Your task to perform on an android device: Go to ESPN.com Image 0: 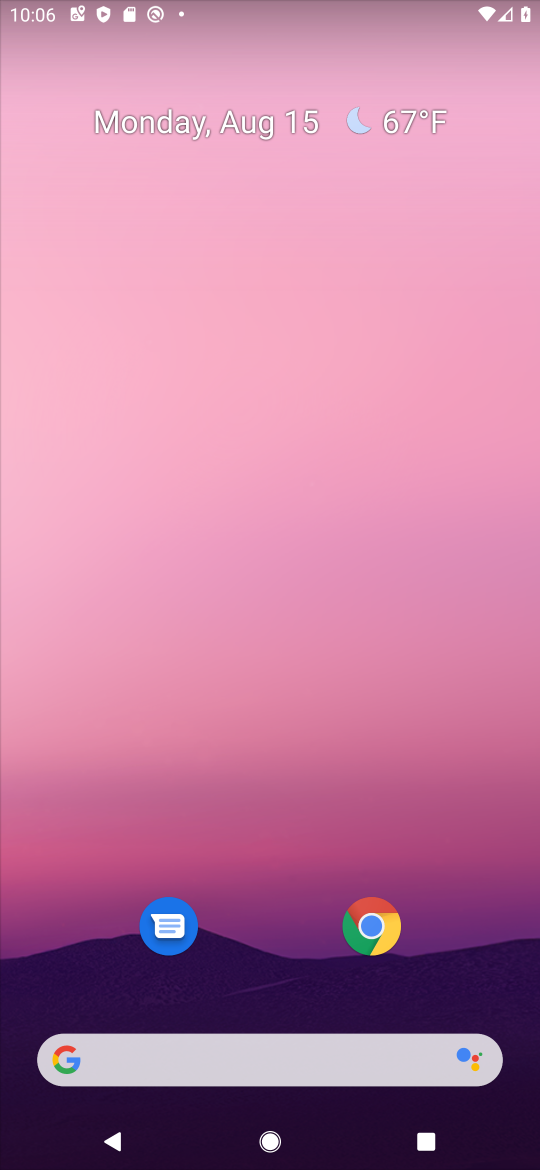
Step 0: press home button
Your task to perform on an android device: Go to ESPN.com Image 1: 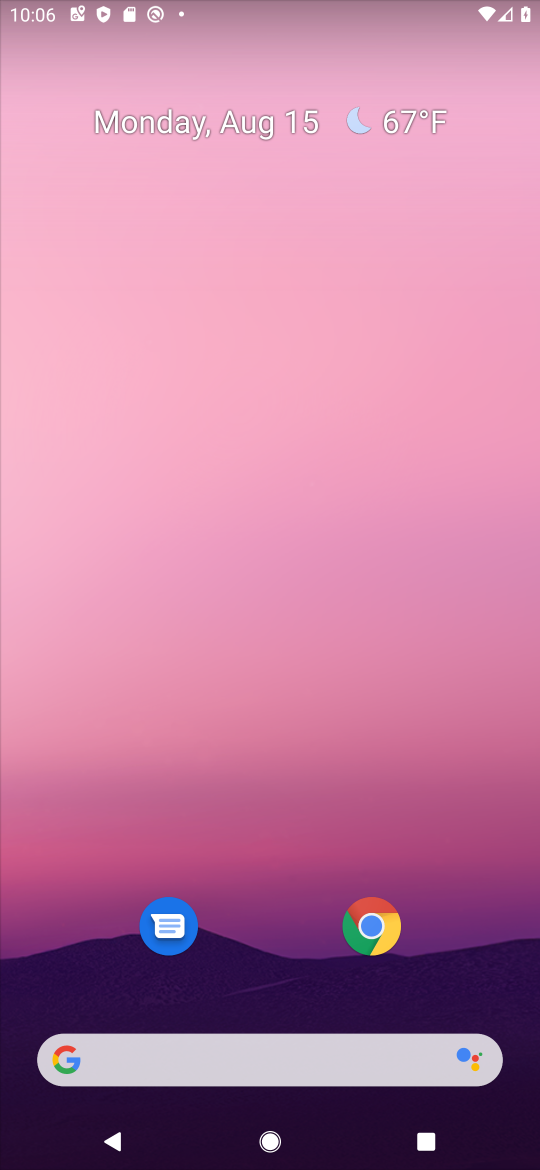
Step 1: drag from (290, 888) to (522, 2)
Your task to perform on an android device: Go to ESPN.com Image 2: 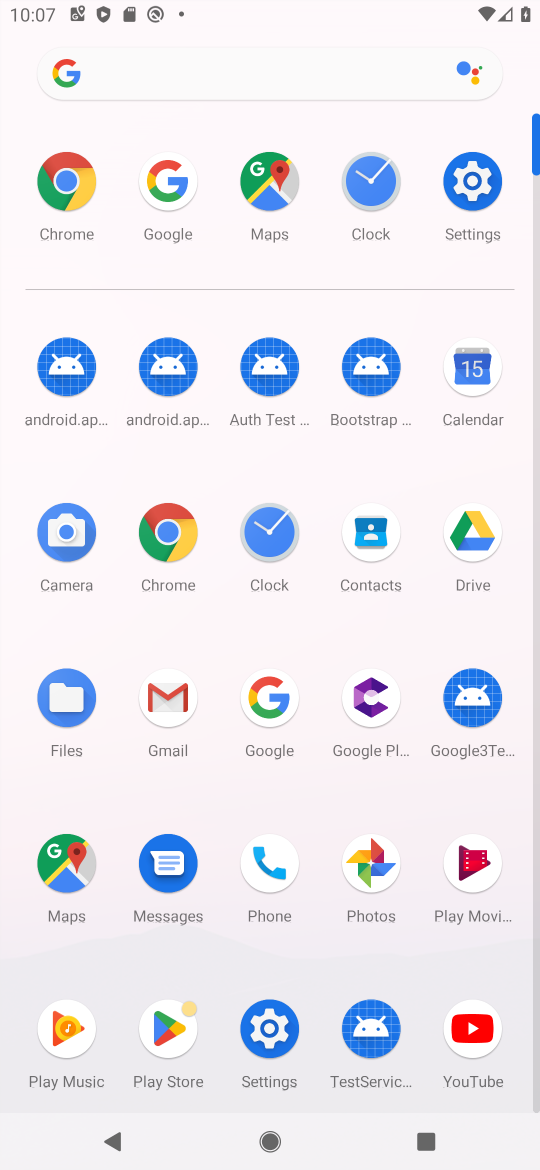
Step 2: click (60, 192)
Your task to perform on an android device: Go to ESPN.com Image 3: 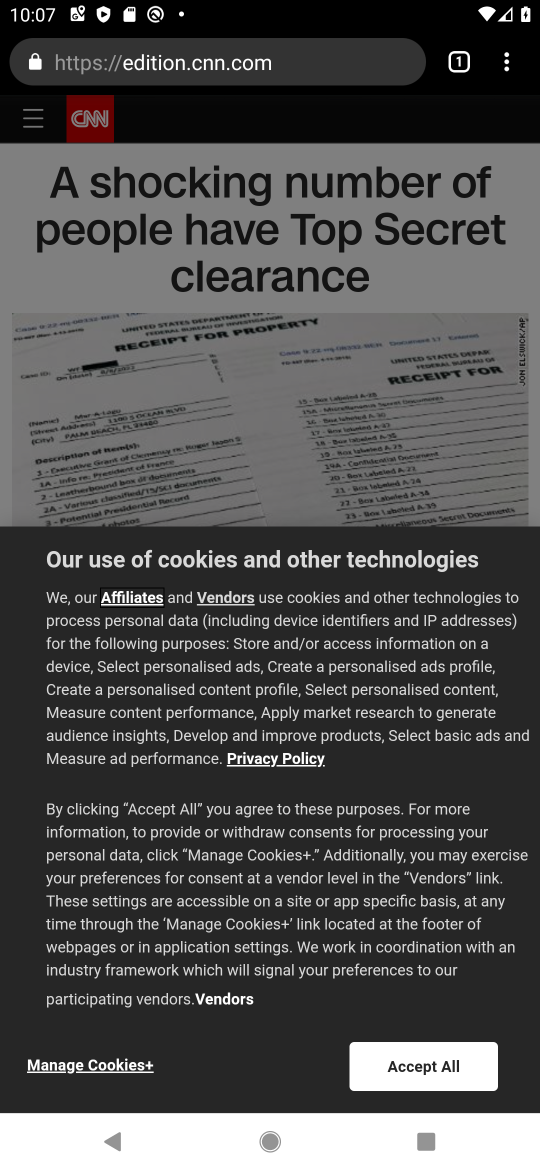
Step 3: click (241, 63)
Your task to perform on an android device: Go to ESPN.com Image 4: 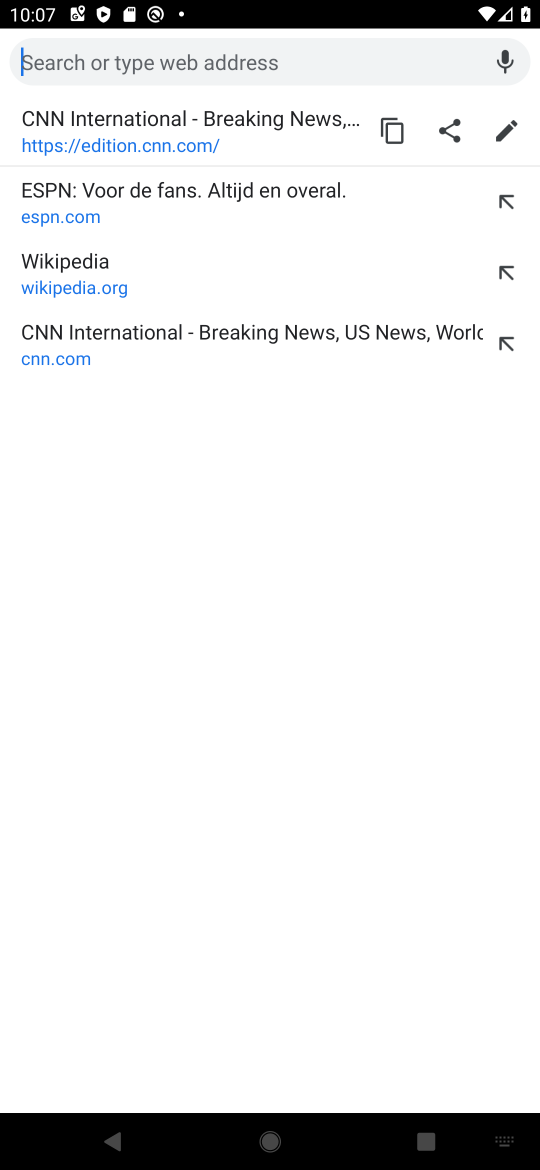
Step 4: type " pizza restaurant"
Your task to perform on an android device: Go to ESPN.com Image 5: 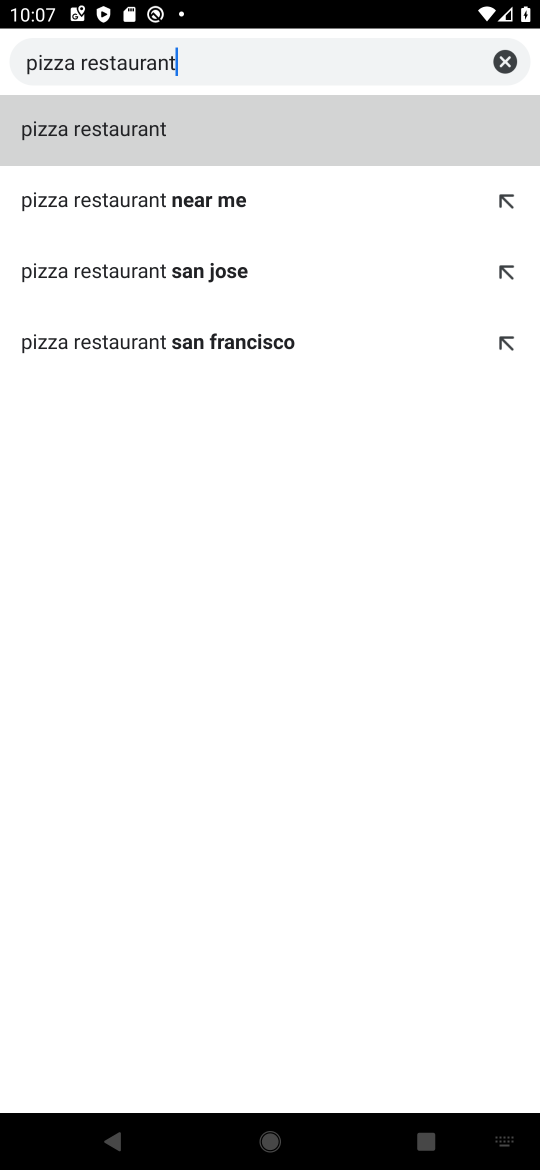
Step 5: click (499, 51)
Your task to perform on an android device: Go to ESPN.com Image 6: 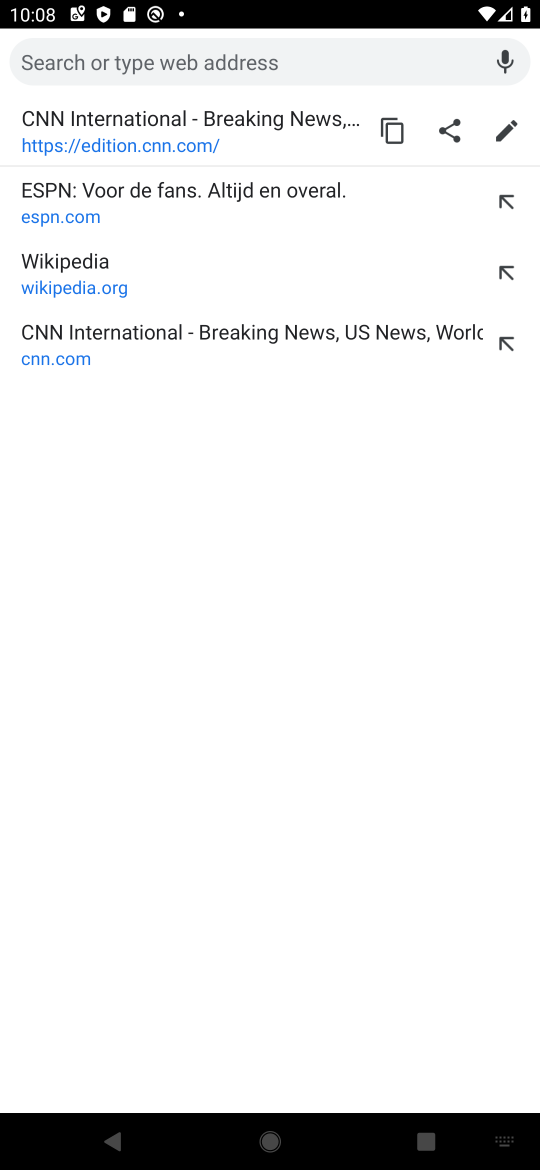
Step 6: click (254, 52)
Your task to perform on an android device: Go to ESPN.com Image 7: 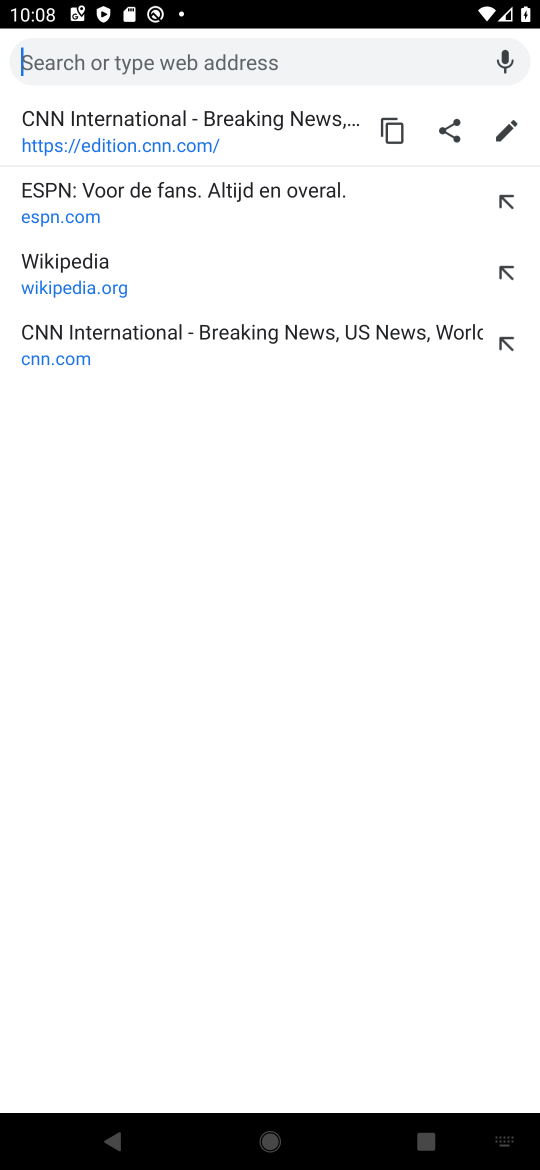
Step 7: type "ESPN.com"
Your task to perform on an android device: Go to ESPN.com Image 8: 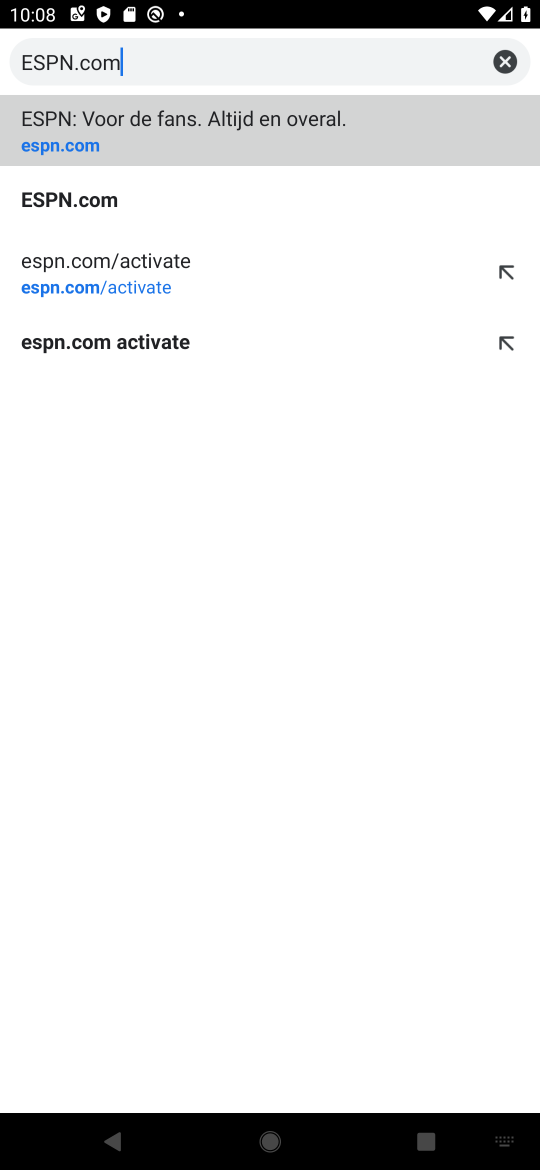
Step 8: type ""
Your task to perform on an android device: Go to ESPN.com Image 9: 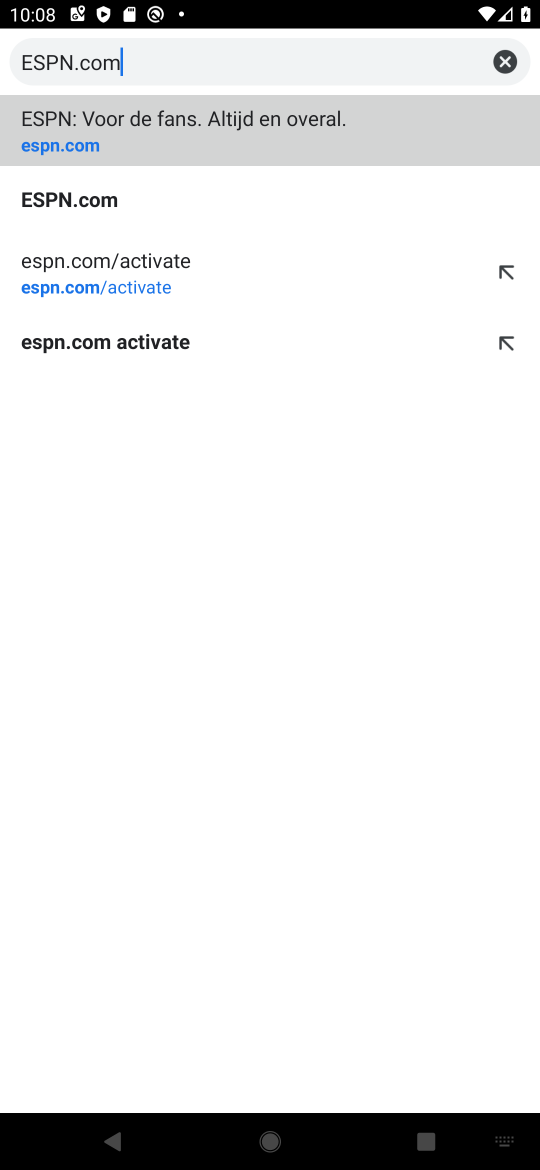
Step 9: click (158, 128)
Your task to perform on an android device: Go to ESPN.com Image 10: 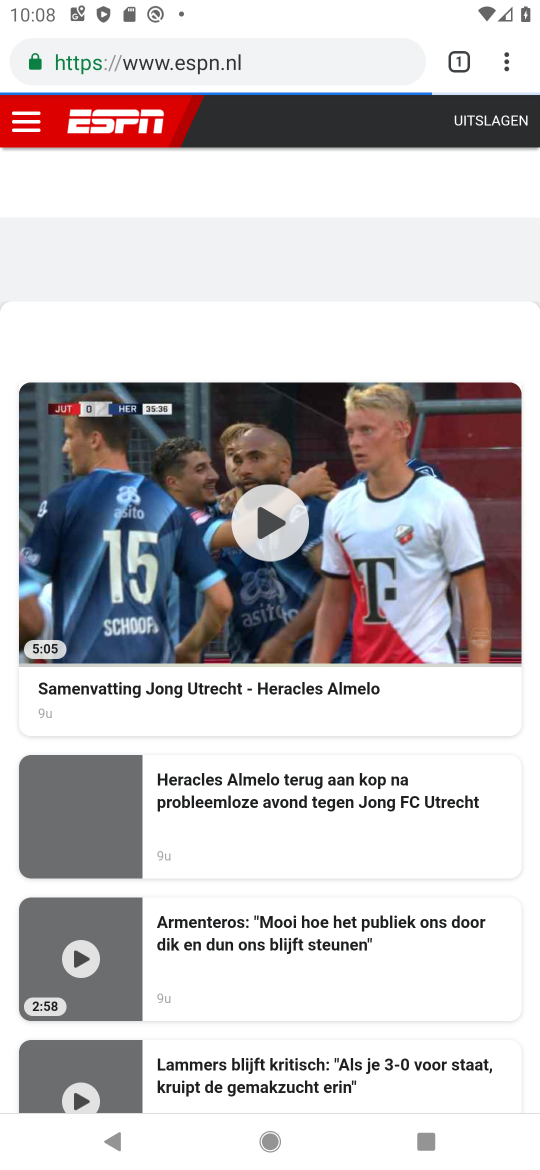
Step 10: task complete